Your task to perform on an android device: change the clock display to show seconds Image 0: 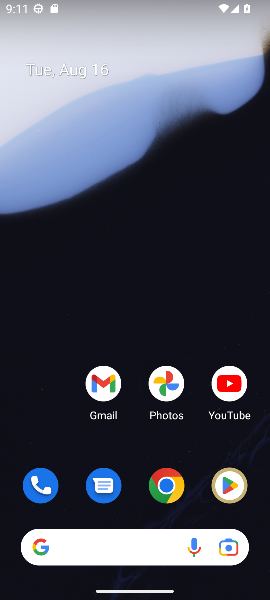
Step 0: drag from (144, 461) to (119, 64)
Your task to perform on an android device: change the clock display to show seconds Image 1: 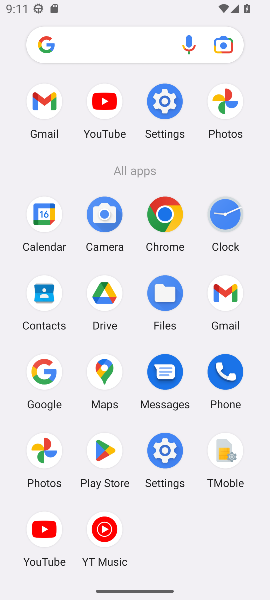
Step 1: click (235, 210)
Your task to perform on an android device: change the clock display to show seconds Image 2: 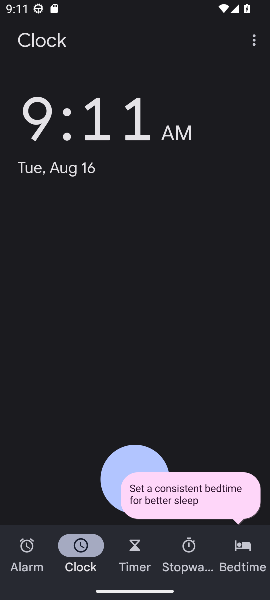
Step 2: click (257, 40)
Your task to perform on an android device: change the clock display to show seconds Image 3: 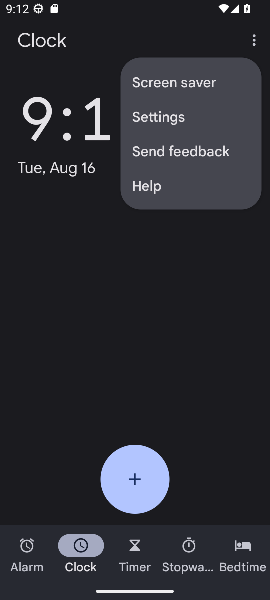
Step 3: click (156, 125)
Your task to perform on an android device: change the clock display to show seconds Image 4: 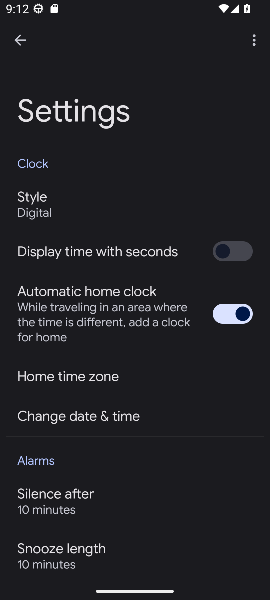
Step 4: click (224, 248)
Your task to perform on an android device: change the clock display to show seconds Image 5: 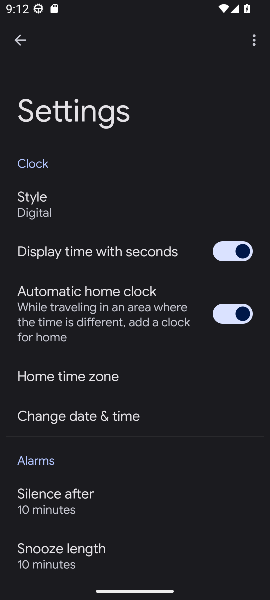
Step 5: task complete